Your task to perform on an android device: allow cookies in the chrome app Image 0: 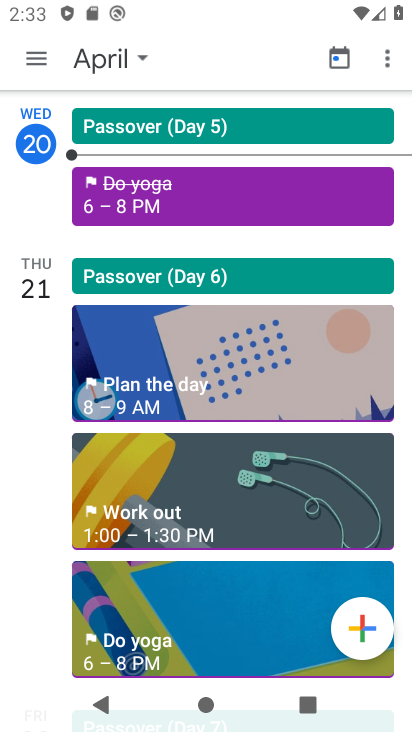
Step 0: press back button
Your task to perform on an android device: allow cookies in the chrome app Image 1: 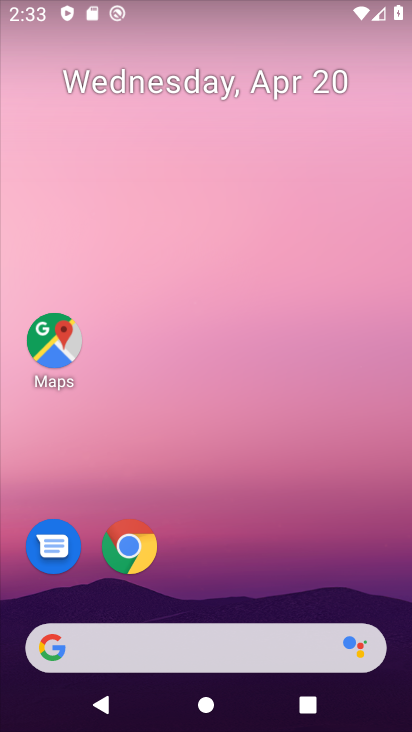
Step 1: click (142, 559)
Your task to perform on an android device: allow cookies in the chrome app Image 2: 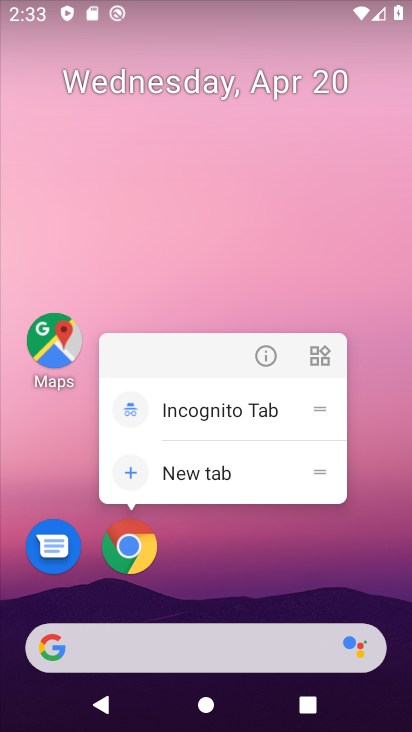
Step 2: click (133, 555)
Your task to perform on an android device: allow cookies in the chrome app Image 3: 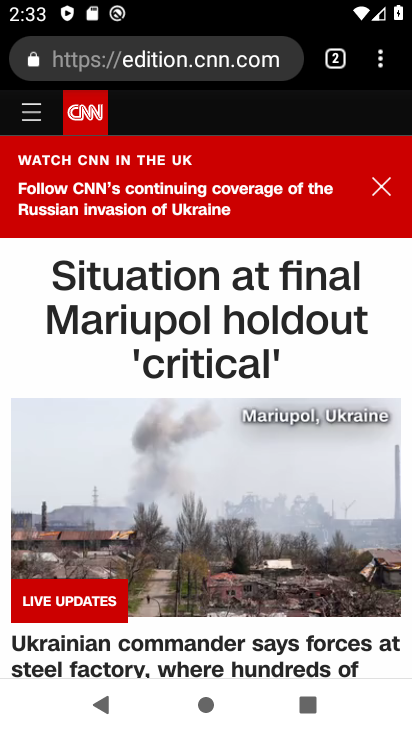
Step 3: drag from (385, 72) to (268, 572)
Your task to perform on an android device: allow cookies in the chrome app Image 4: 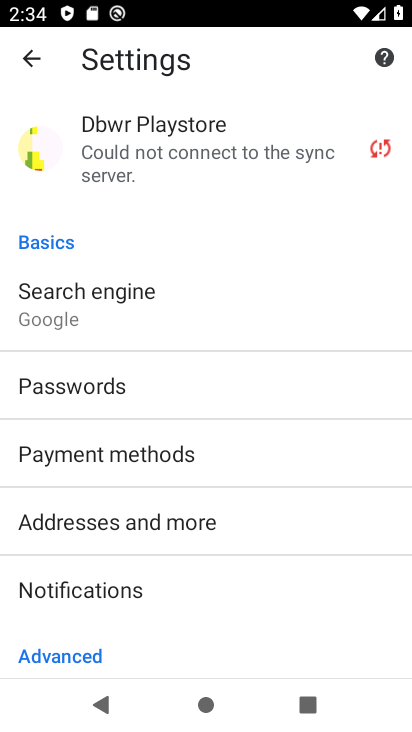
Step 4: drag from (164, 614) to (272, 282)
Your task to perform on an android device: allow cookies in the chrome app Image 5: 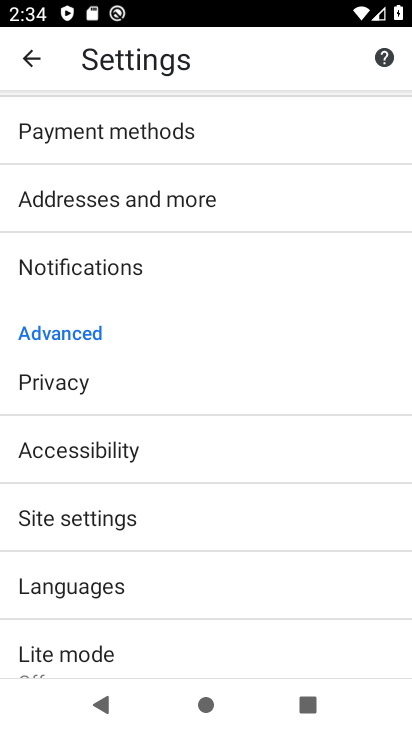
Step 5: click (140, 526)
Your task to perform on an android device: allow cookies in the chrome app Image 6: 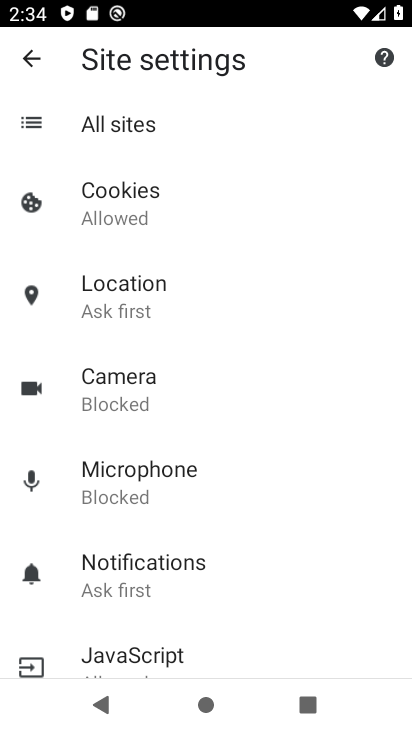
Step 6: click (169, 210)
Your task to perform on an android device: allow cookies in the chrome app Image 7: 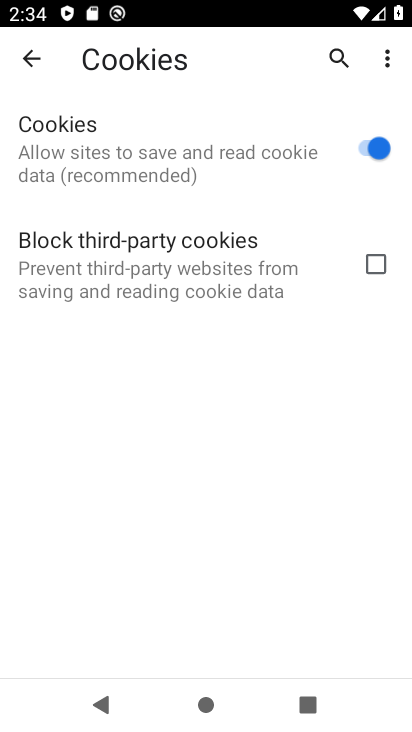
Step 7: task complete